Your task to perform on an android device: turn on location history Image 0: 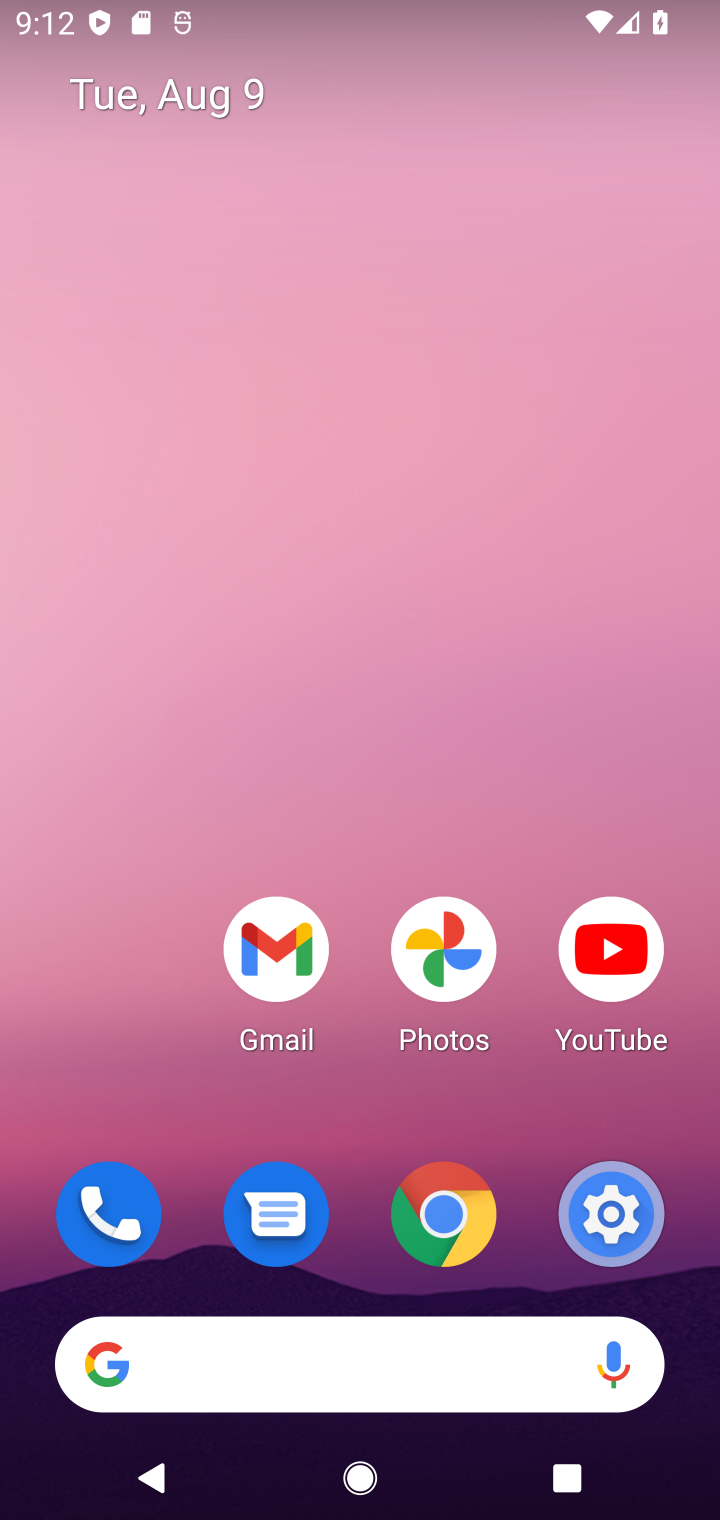
Step 0: click (596, 1249)
Your task to perform on an android device: turn on location history Image 1: 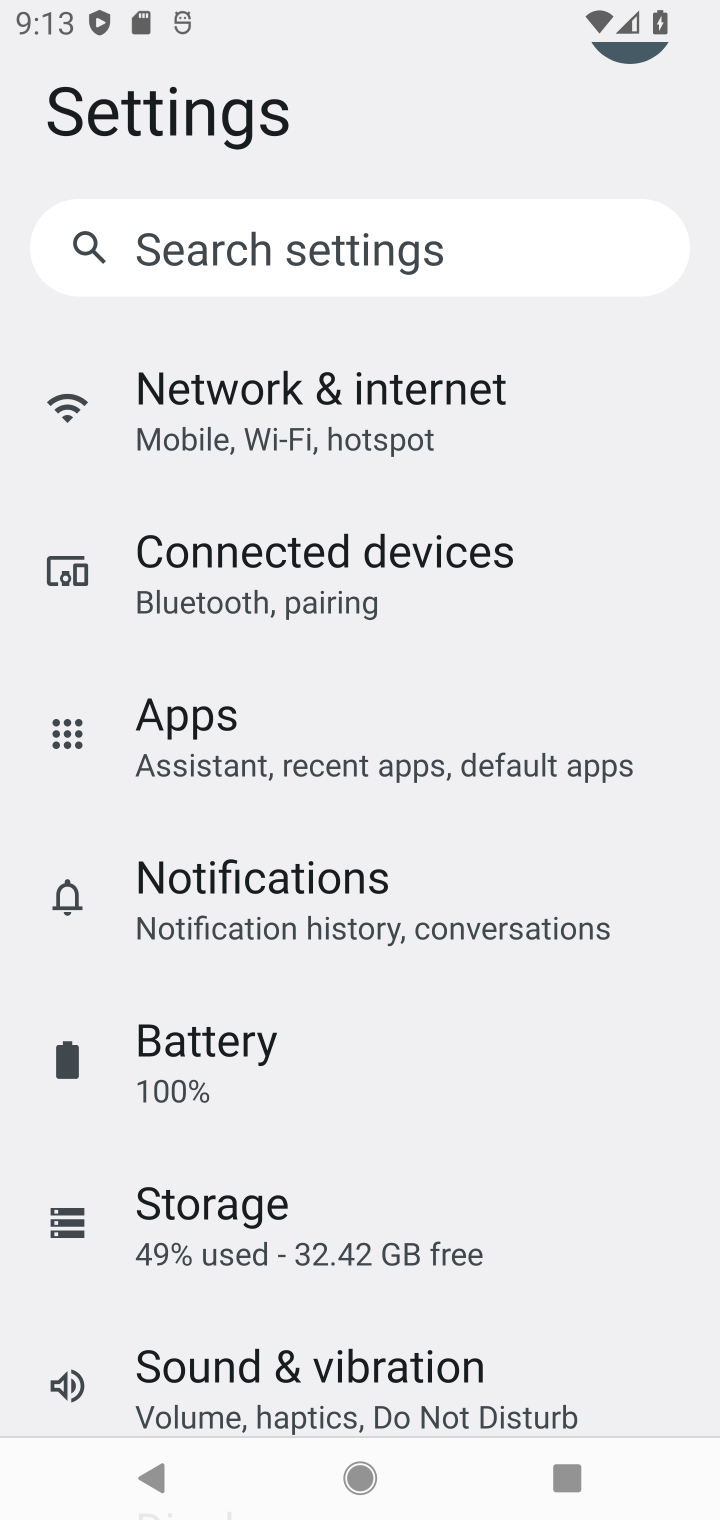
Step 1: click (323, 394)
Your task to perform on an android device: turn on location history Image 2: 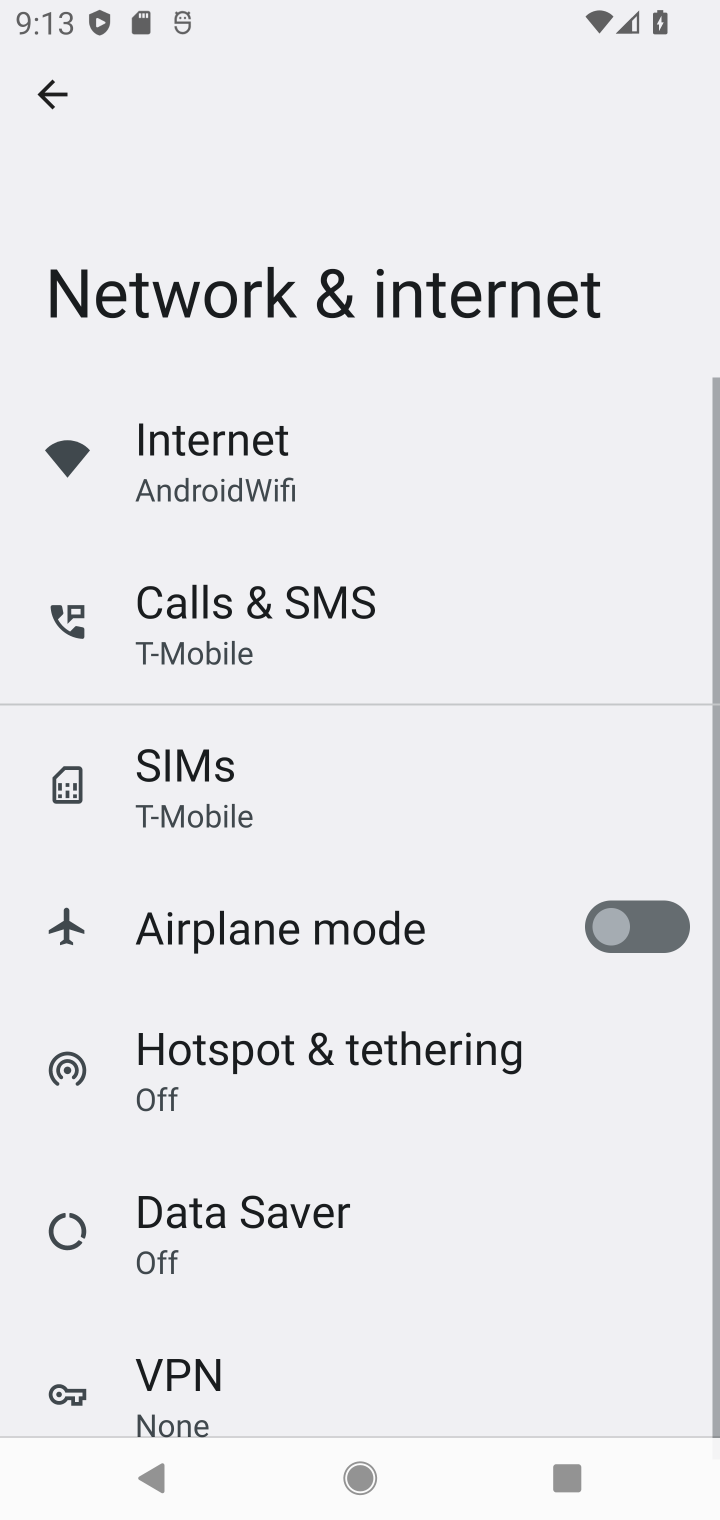
Step 2: click (400, 736)
Your task to perform on an android device: turn on location history Image 3: 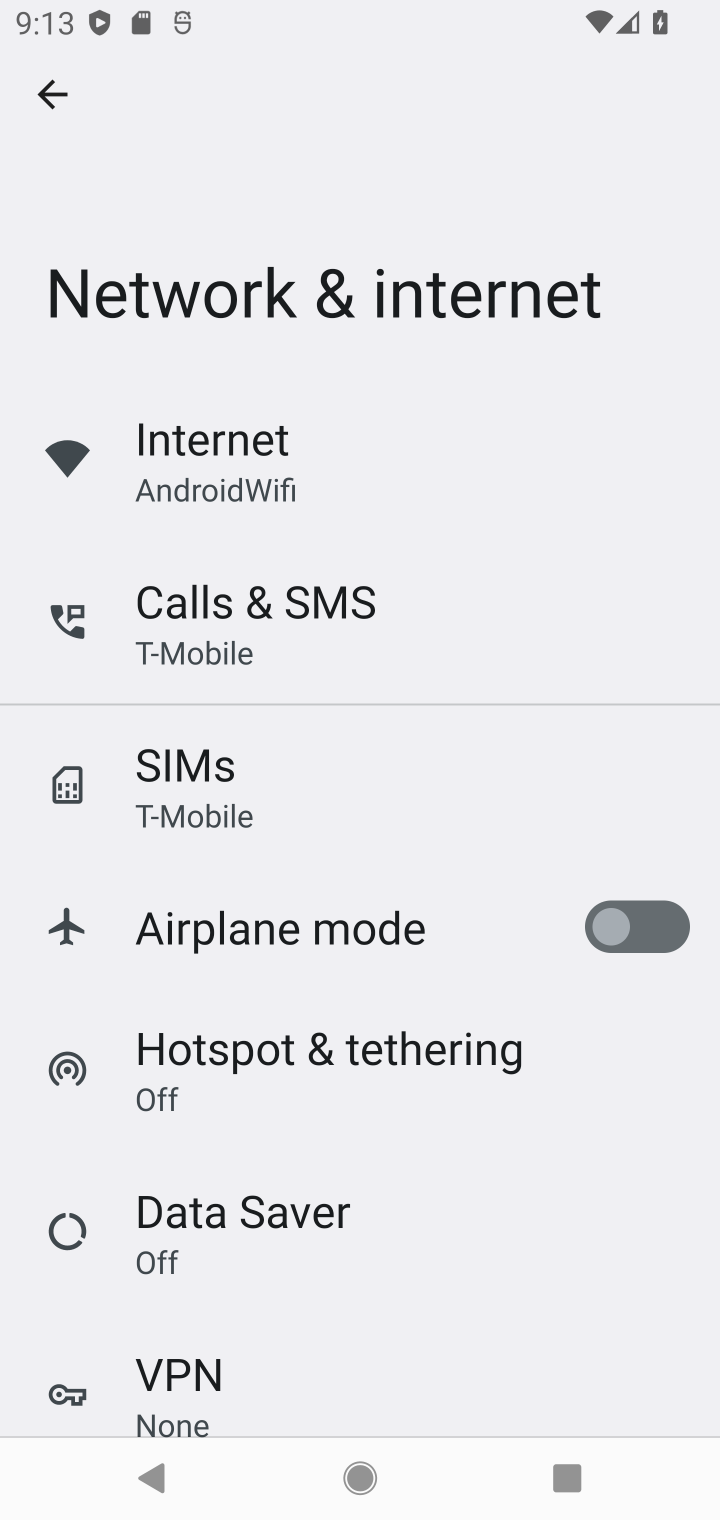
Step 3: task complete